Your task to perform on an android device: show emergency info Image 0: 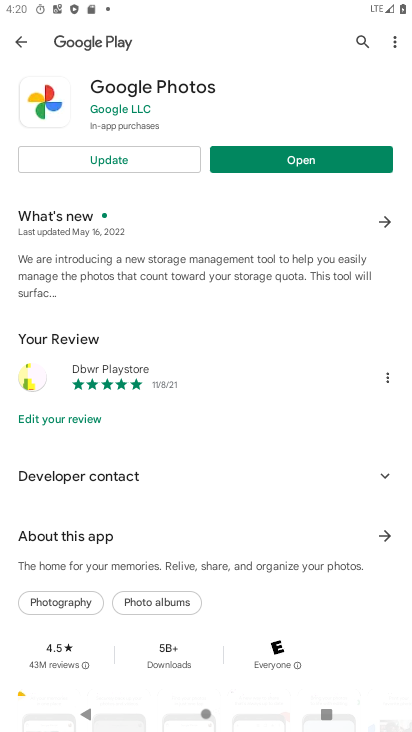
Step 0: press home button
Your task to perform on an android device: show emergency info Image 1: 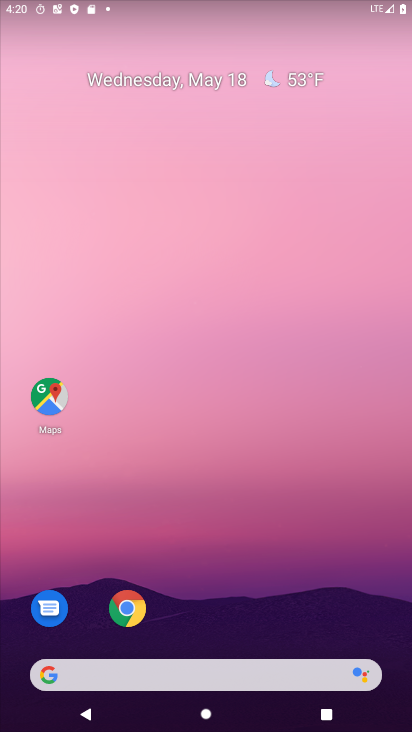
Step 1: drag from (195, 681) to (251, 0)
Your task to perform on an android device: show emergency info Image 2: 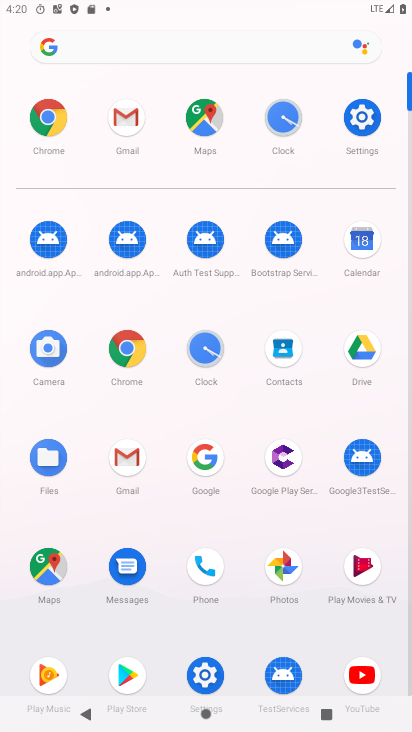
Step 2: click (364, 107)
Your task to perform on an android device: show emergency info Image 3: 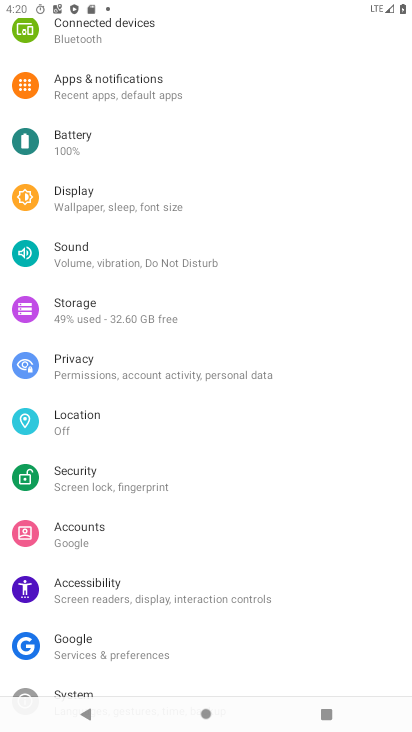
Step 3: drag from (253, 670) to (261, 324)
Your task to perform on an android device: show emergency info Image 4: 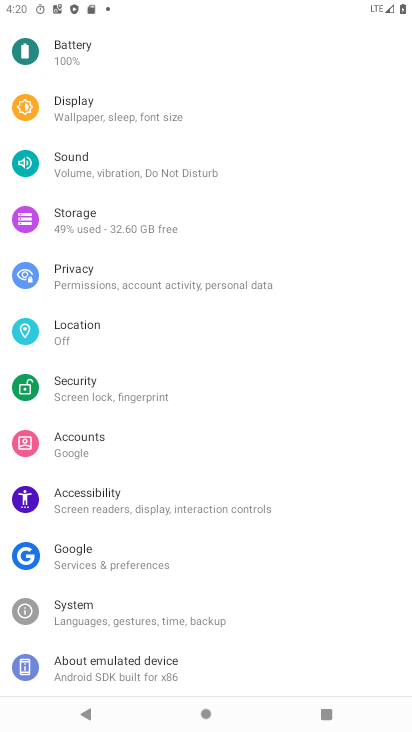
Step 4: click (193, 666)
Your task to perform on an android device: show emergency info Image 5: 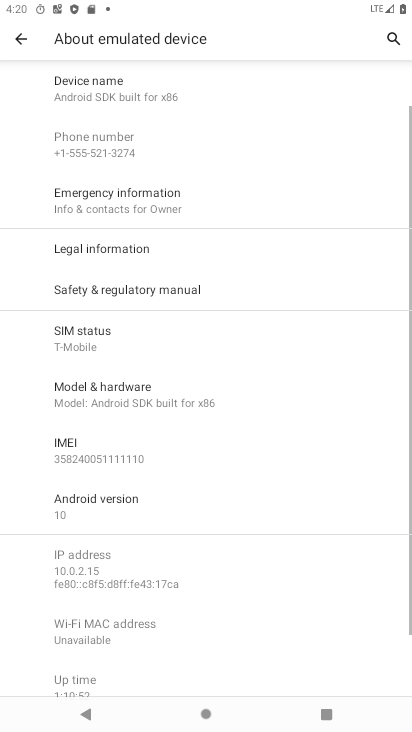
Step 5: click (148, 187)
Your task to perform on an android device: show emergency info Image 6: 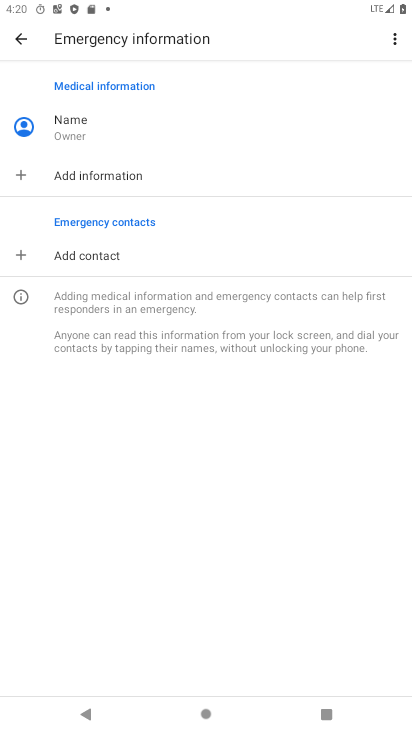
Step 6: task complete